Your task to perform on an android device: turn off translation in the chrome app Image 0: 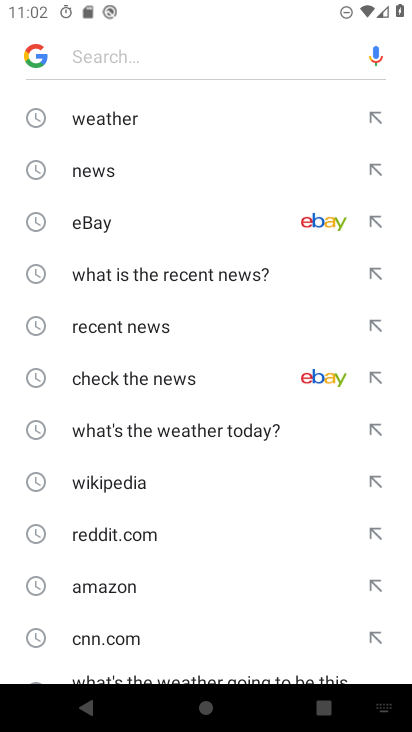
Step 0: press home button
Your task to perform on an android device: turn off translation in the chrome app Image 1: 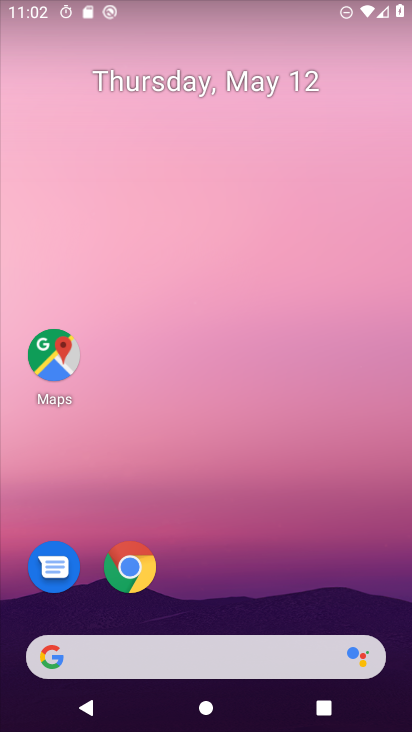
Step 1: click (134, 573)
Your task to perform on an android device: turn off translation in the chrome app Image 2: 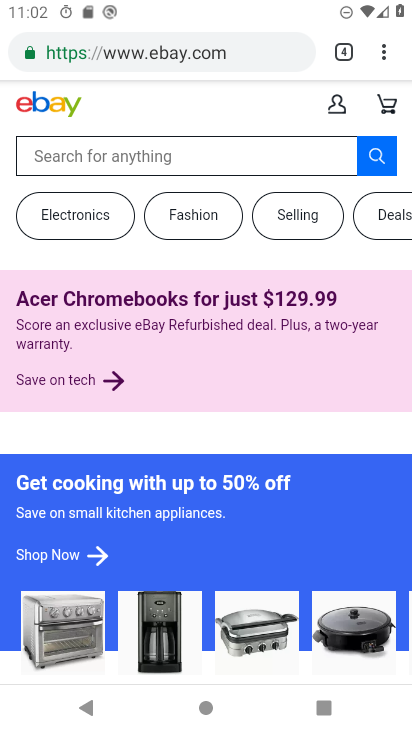
Step 2: click (384, 49)
Your task to perform on an android device: turn off translation in the chrome app Image 3: 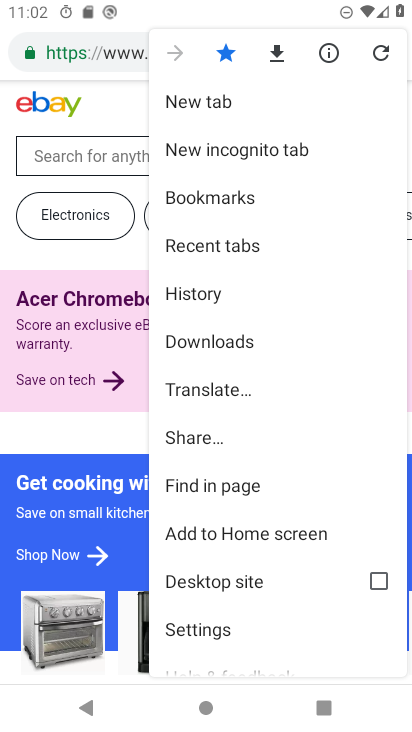
Step 3: click (244, 381)
Your task to perform on an android device: turn off translation in the chrome app Image 4: 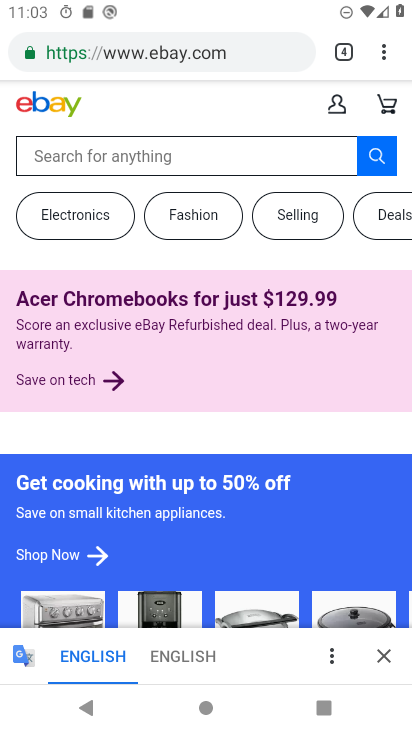
Step 4: click (336, 657)
Your task to perform on an android device: turn off translation in the chrome app Image 5: 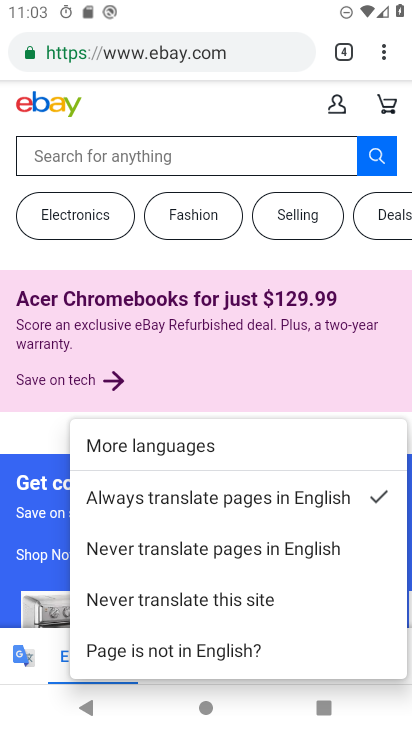
Step 5: click (225, 607)
Your task to perform on an android device: turn off translation in the chrome app Image 6: 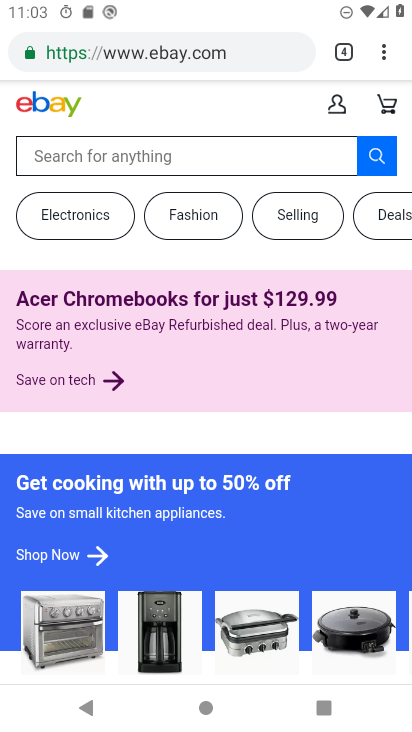
Step 6: task complete